Your task to perform on an android device: Open location settings Image 0: 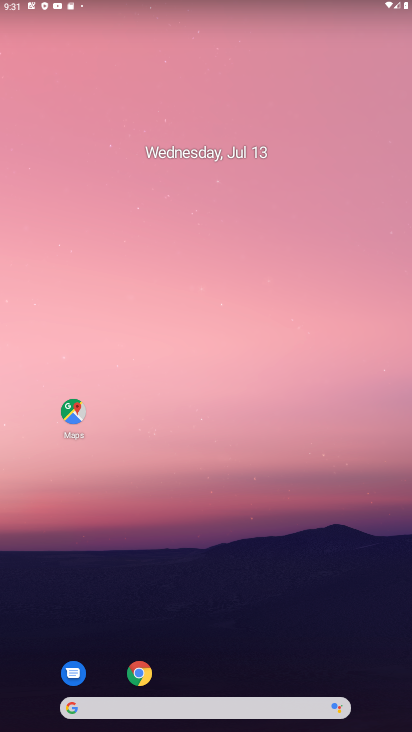
Step 0: drag from (190, 681) to (176, 14)
Your task to perform on an android device: Open location settings Image 1: 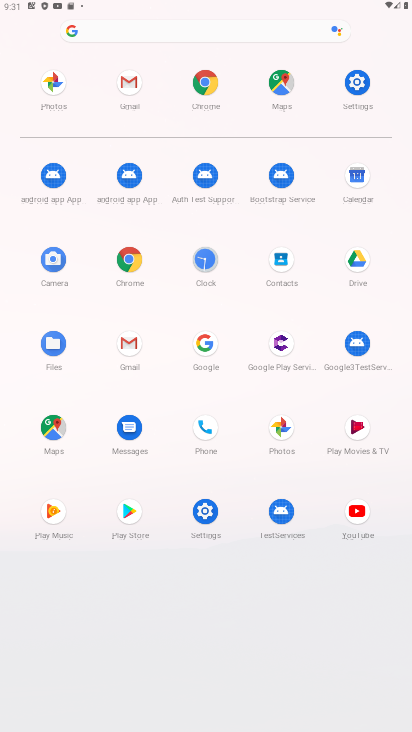
Step 1: click (363, 83)
Your task to perform on an android device: Open location settings Image 2: 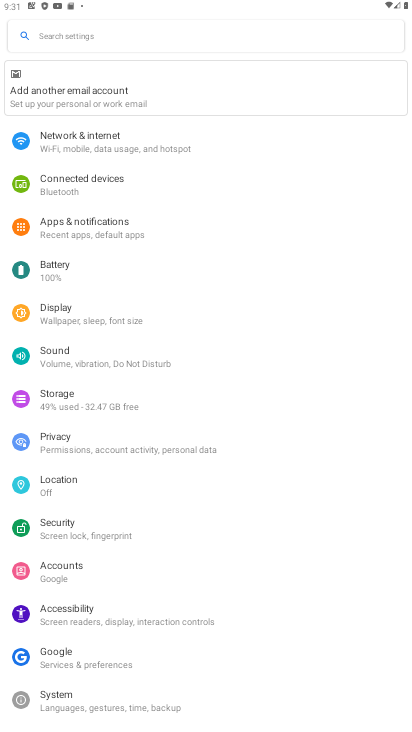
Step 2: task complete